Your task to perform on an android device: Open Wikipedia Image 0: 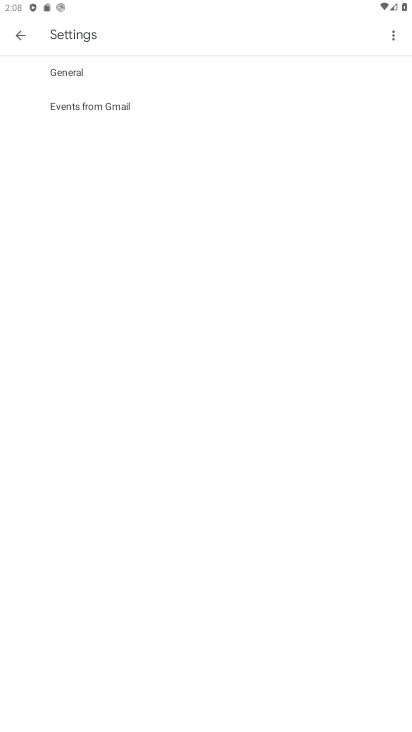
Step 0: press home button
Your task to perform on an android device: Open Wikipedia Image 1: 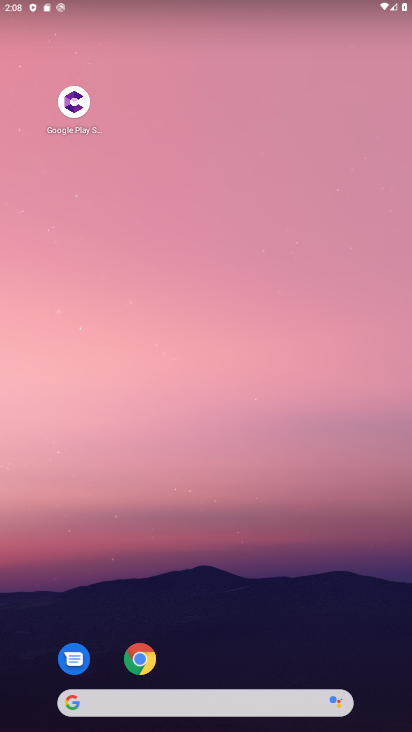
Step 1: click (137, 650)
Your task to perform on an android device: Open Wikipedia Image 2: 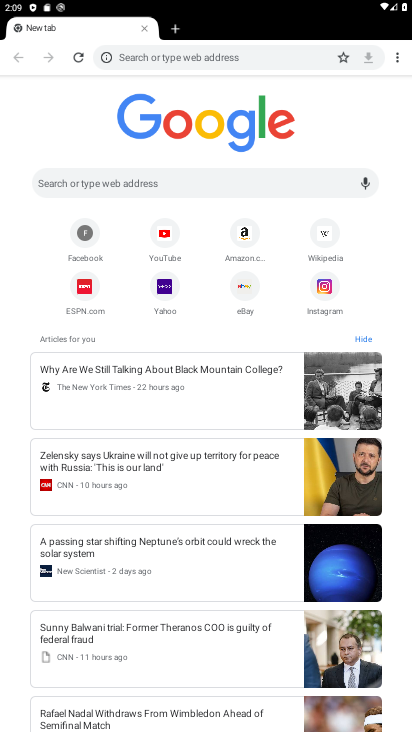
Step 2: click (327, 224)
Your task to perform on an android device: Open Wikipedia Image 3: 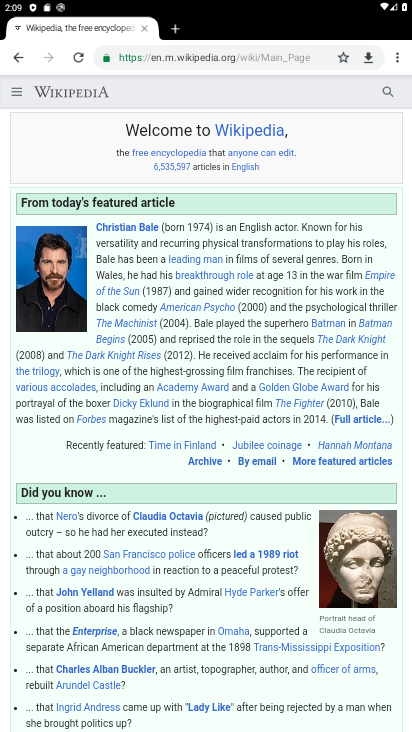
Step 3: task complete